Your task to perform on an android device: change alarm snooze length Image 0: 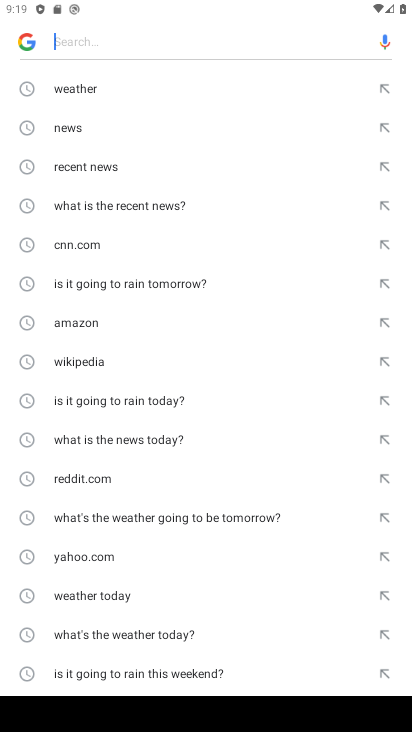
Step 0: press home button
Your task to perform on an android device: change alarm snooze length Image 1: 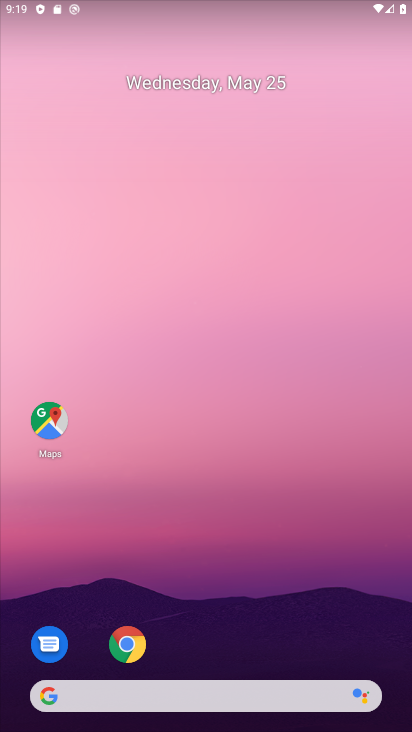
Step 1: drag from (262, 641) to (313, 2)
Your task to perform on an android device: change alarm snooze length Image 2: 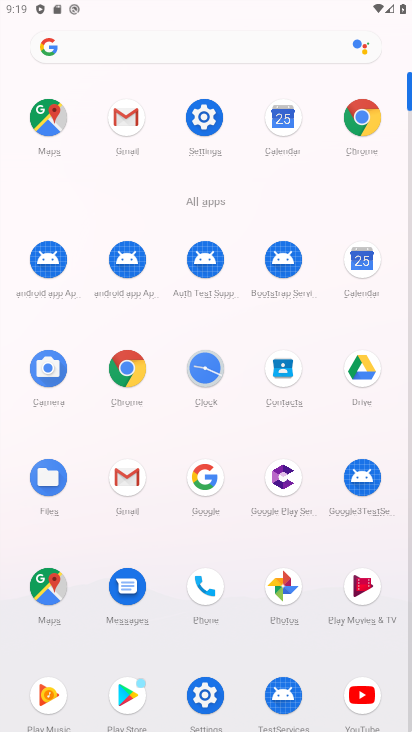
Step 2: click (209, 371)
Your task to perform on an android device: change alarm snooze length Image 3: 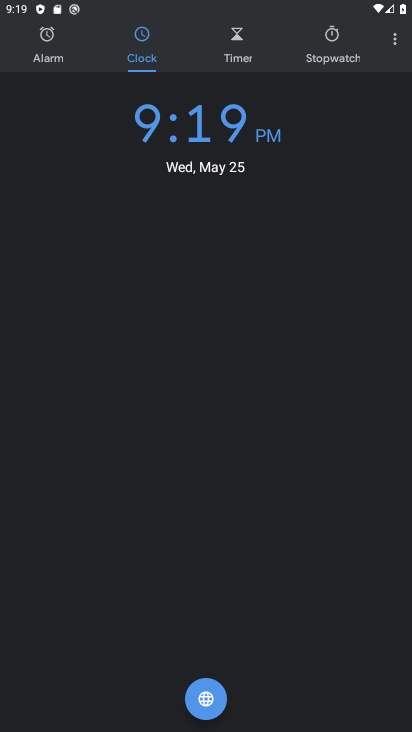
Step 3: click (395, 40)
Your task to perform on an android device: change alarm snooze length Image 4: 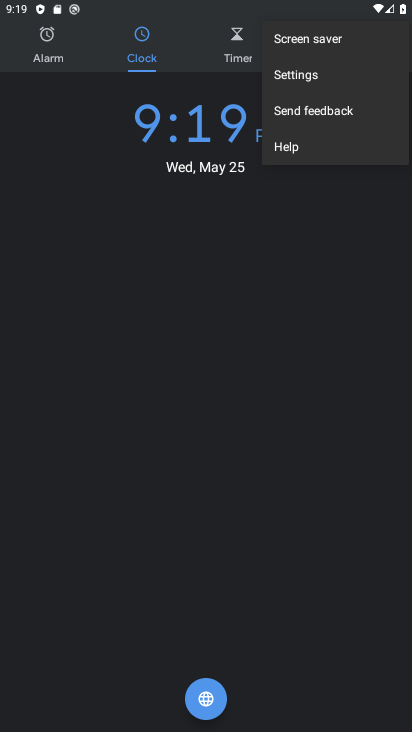
Step 4: click (302, 73)
Your task to perform on an android device: change alarm snooze length Image 5: 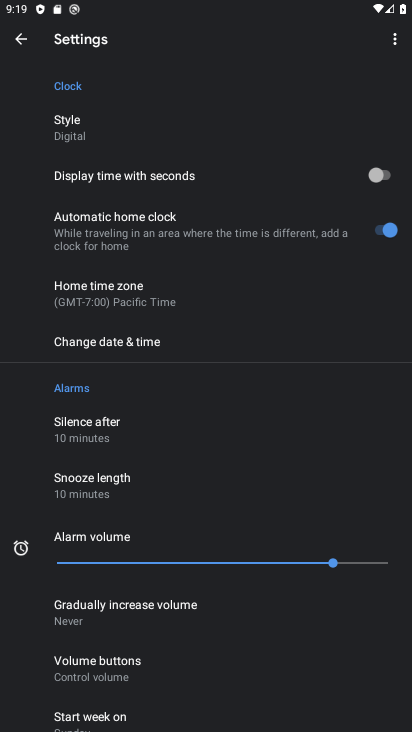
Step 5: click (97, 492)
Your task to perform on an android device: change alarm snooze length Image 6: 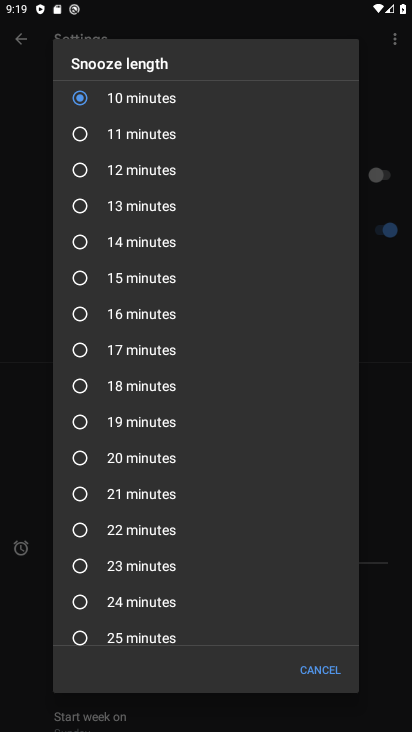
Step 6: click (82, 170)
Your task to perform on an android device: change alarm snooze length Image 7: 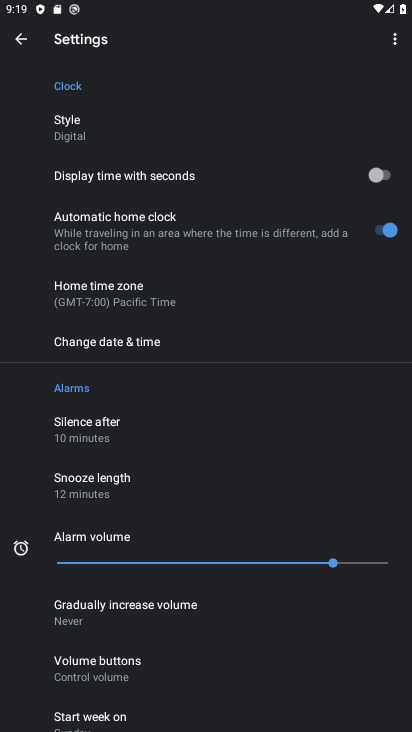
Step 7: task complete